Your task to perform on an android device: Open battery settings Image 0: 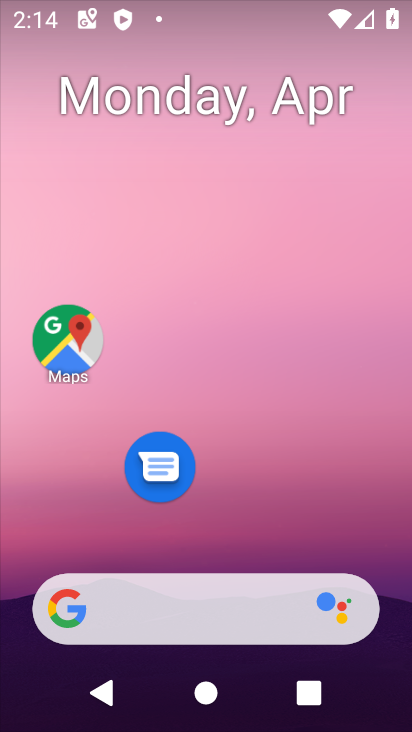
Step 0: drag from (310, 509) to (280, 60)
Your task to perform on an android device: Open battery settings Image 1: 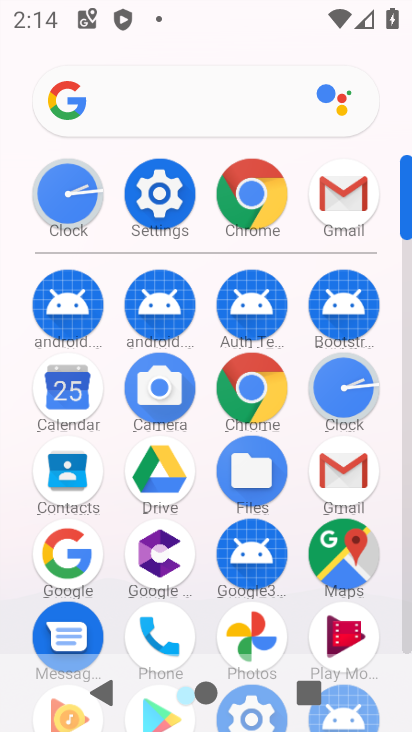
Step 1: click (162, 185)
Your task to perform on an android device: Open battery settings Image 2: 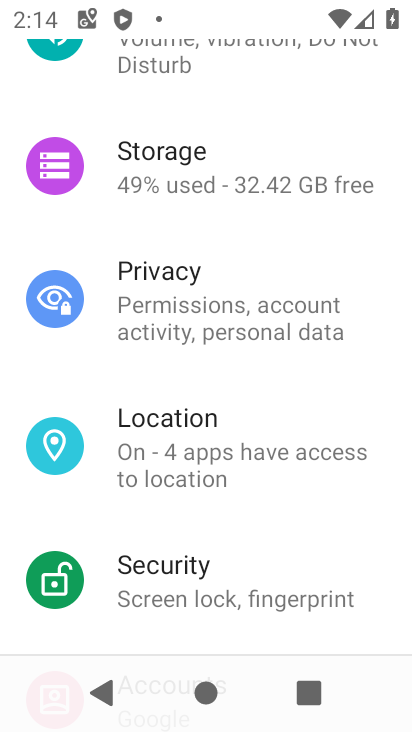
Step 2: drag from (206, 242) to (258, 354)
Your task to perform on an android device: Open battery settings Image 3: 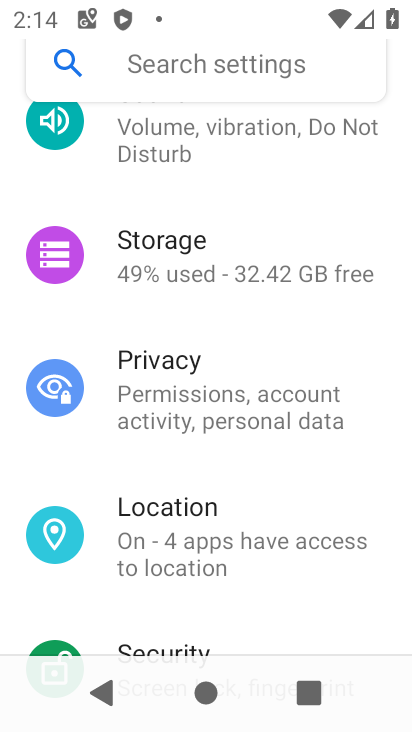
Step 3: drag from (250, 205) to (210, 386)
Your task to perform on an android device: Open battery settings Image 4: 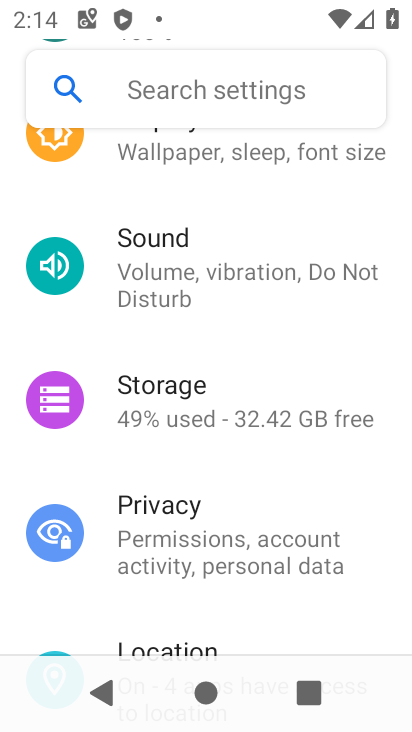
Step 4: drag from (206, 209) to (185, 363)
Your task to perform on an android device: Open battery settings Image 5: 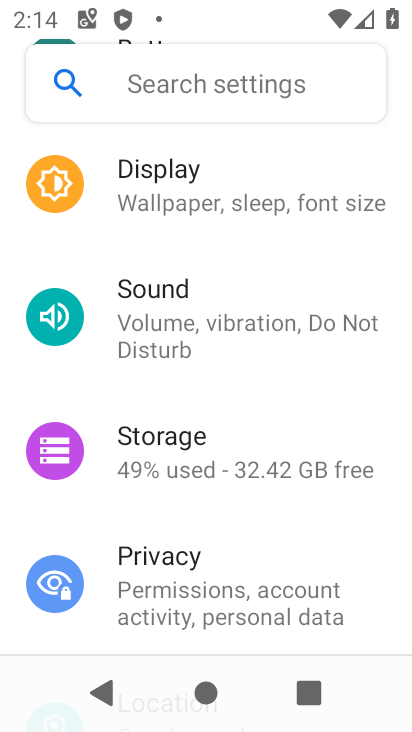
Step 5: drag from (184, 227) to (147, 491)
Your task to perform on an android device: Open battery settings Image 6: 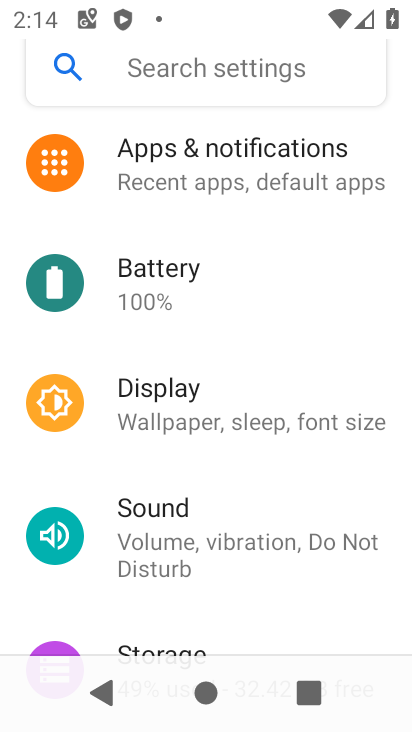
Step 6: click (168, 257)
Your task to perform on an android device: Open battery settings Image 7: 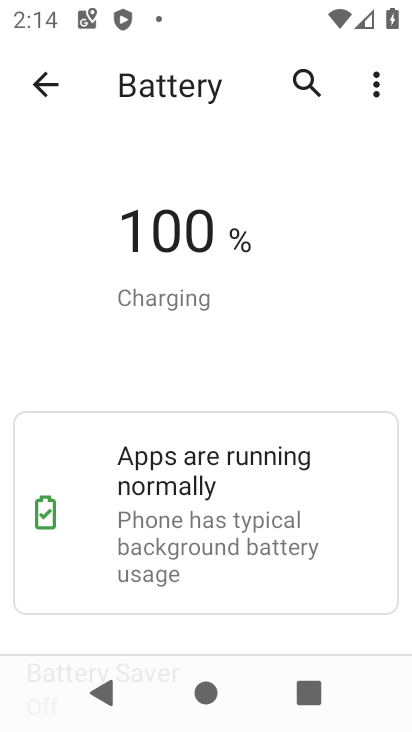
Step 7: task complete